Your task to perform on an android device: turn off sleep mode Image 0: 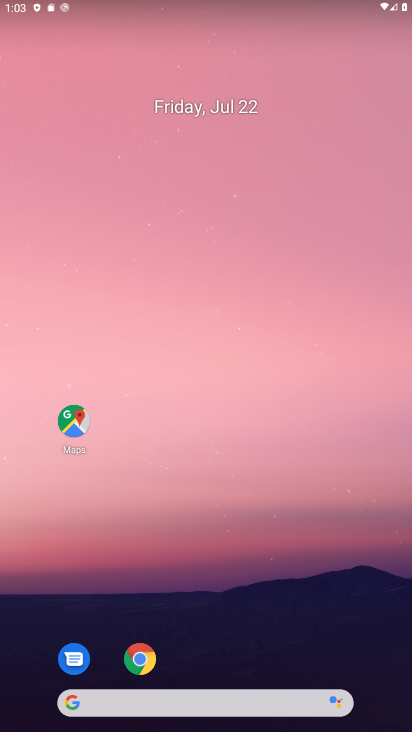
Step 0: drag from (284, 620) to (122, 13)
Your task to perform on an android device: turn off sleep mode Image 1: 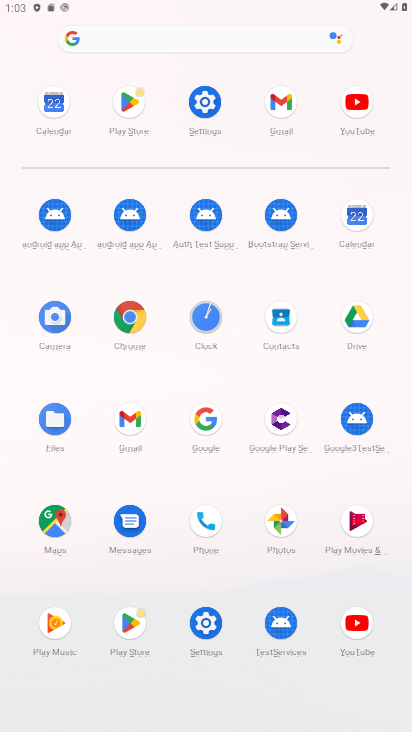
Step 1: click (220, 97)
Your task to perform on an android device: turn off sleep mode Image 2: 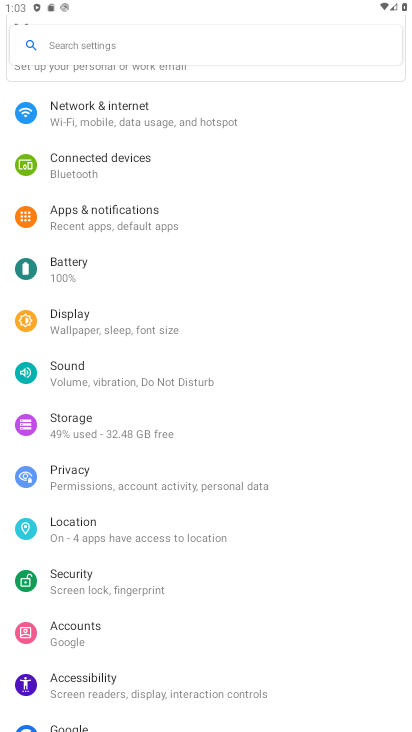
Step 2: click (163, 341)
Your task to perform on an android device: turn off sleep mode Image 3: 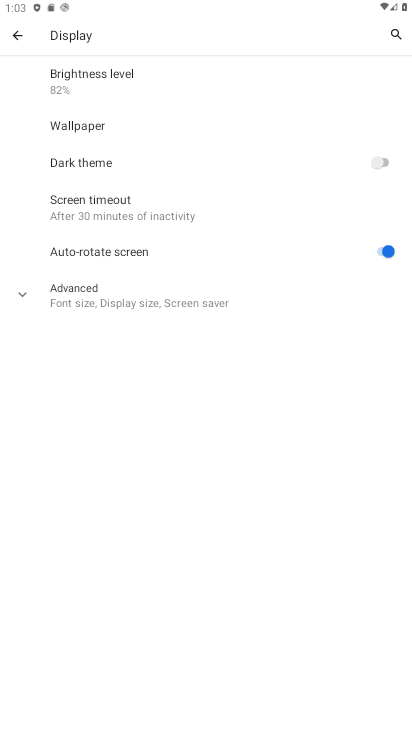
Step 3: task complete